Your task to perform on an android device: turn smart compose on in the gmail app Image 0: 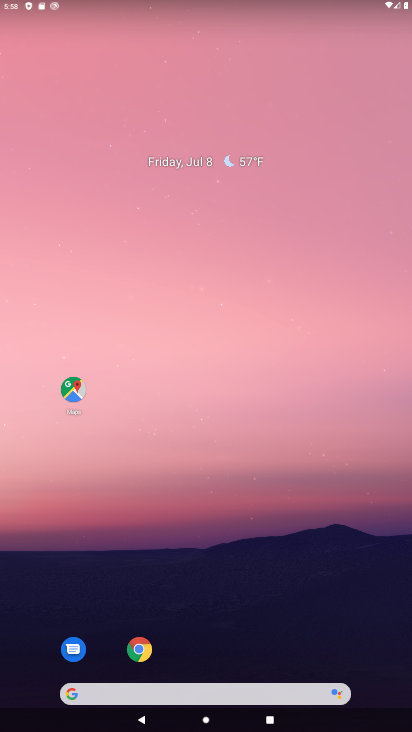
Step 0: drag from (215, 692) to (339, 19)
Your task to perform on an android device: turn smart compose on in the gmail app Image 1: 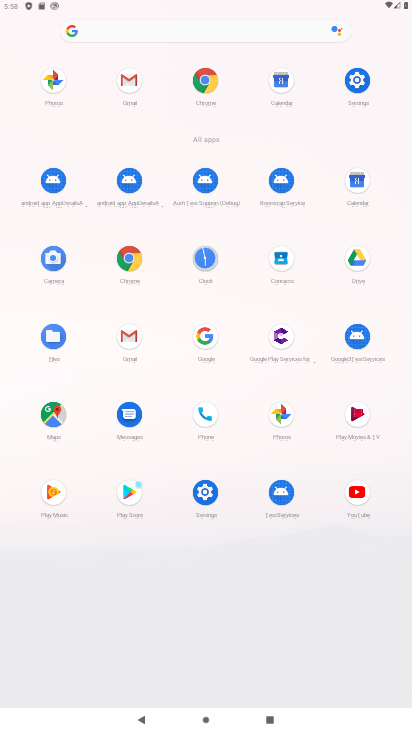
Step 1: click (130, 334)
Your task to perform on an android device: turn smart compose on in the gmail app Image 2: 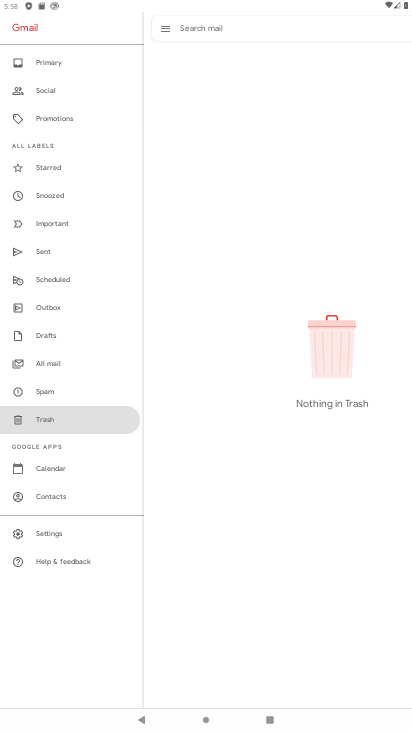
Step 2: click (68, 531)
Your task to perform on an android device: turn smart compose on in the gmail app Image 3: 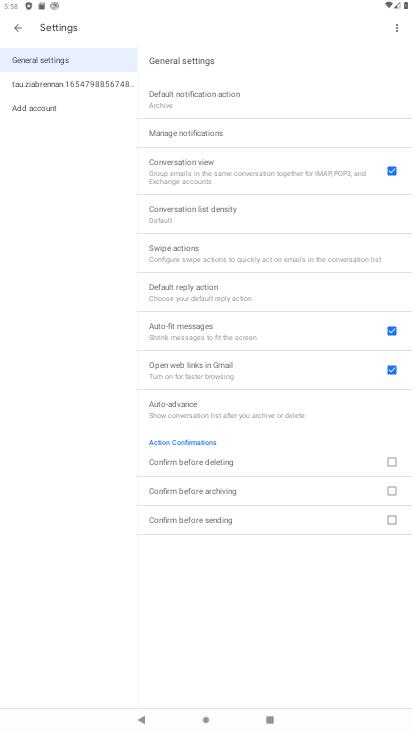
Step 3: click (65, 81)
Your task to perform on an android device: turn smart compose on in the gmail app Image 4: 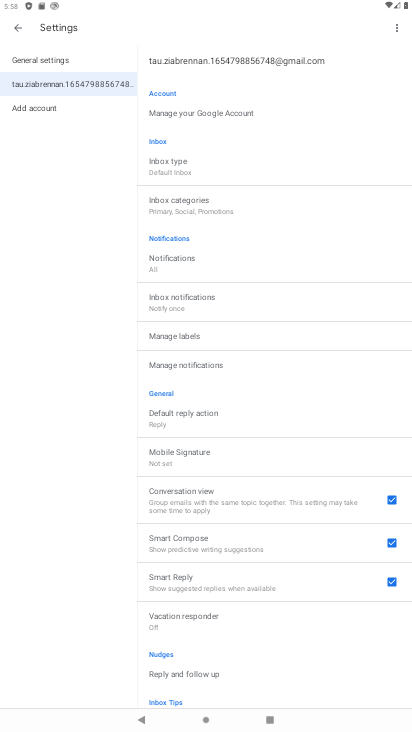
Step 4: task complete